Your task to perform on an android device: turn on showing notifications on the lock screen Image 0: 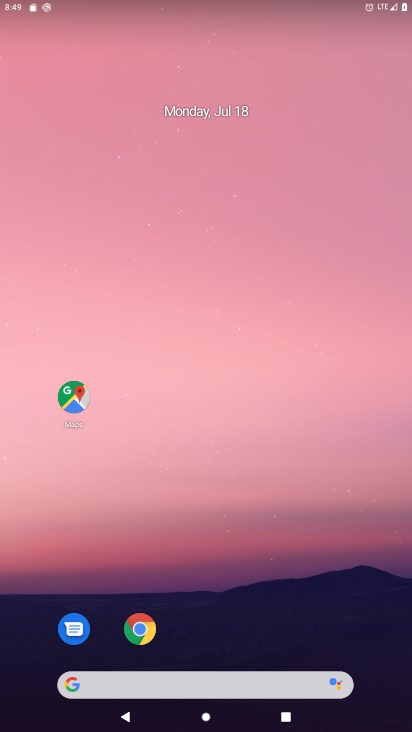
Step 0: drag from (210, 647) to (222, 18)
Your task to perform on an android device: turn on showing notifications on the lock screen Image 1: 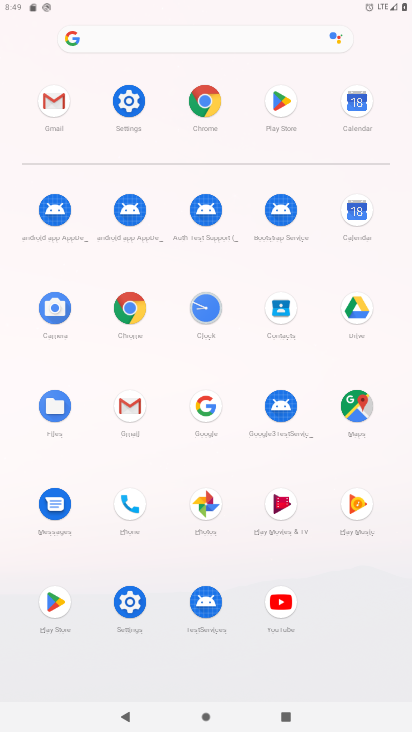
Step 1: click (131, 612)
Your task to perform on an android device: turn on showing notifications on the lock screen Image 2: 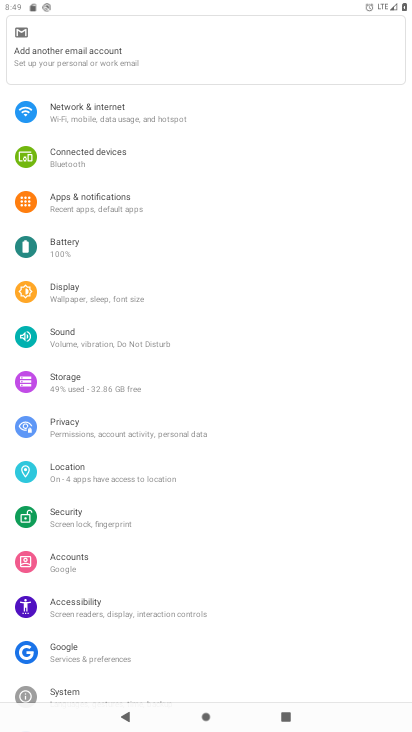
Step 2: click (96, 195)
Your task to perform on an android device: turn on showing notifications on the lock screen Image 3: 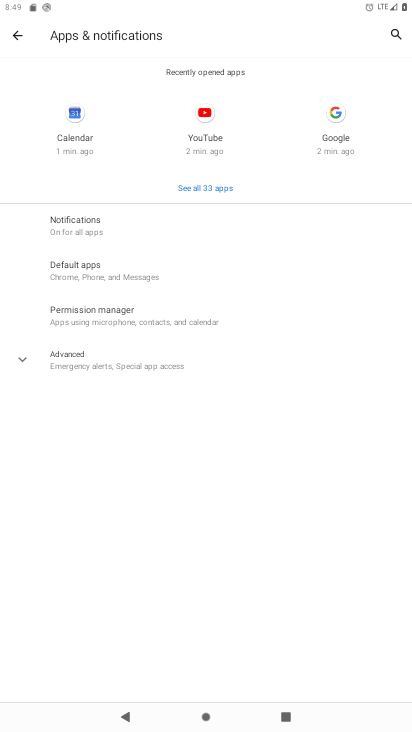
Step 3: click (88, 235)
Your task to perform on an android device: turn on showing notifications on the lock screen Image 4: 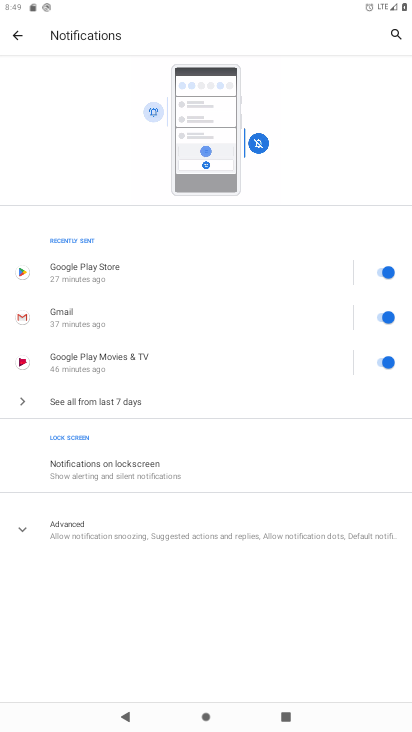
Step 4: click (98, 473)
Your task to perform on an android device: turn on showing notifications on the lock screen Image 5: 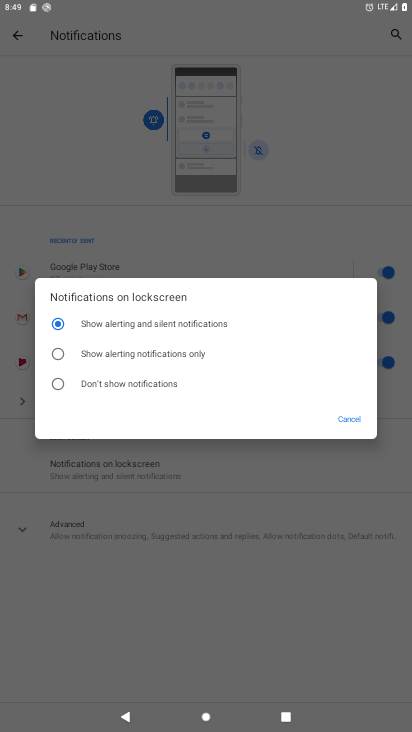
Step 5: task complete